Your task to perform on an android device: Show the shopping cart on newegg.com. Add beats solo 3 to the cart on newegg.com Image 0: 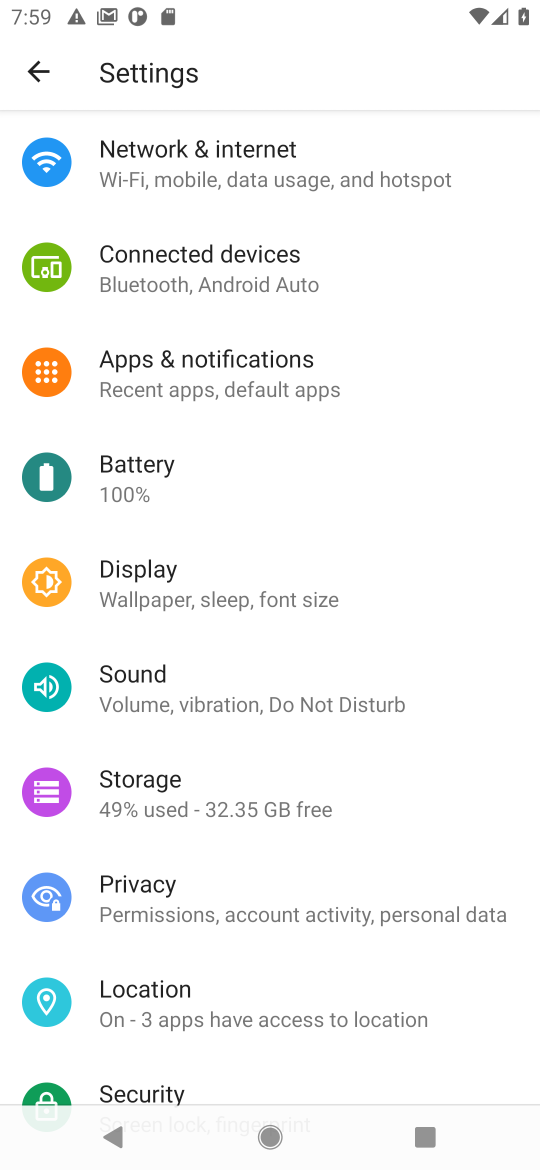
Step 0: press home button
Your task to perform on an android device: Show the shopping cart on newegg.com. Add beats solo 3 to the cart on newegg.com Image 1: 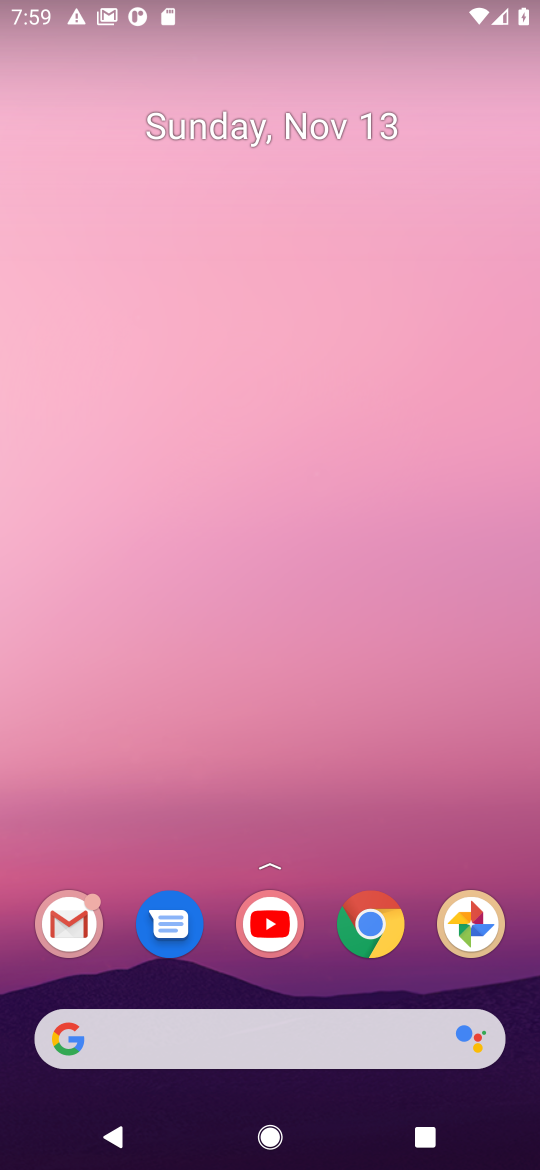
Step 1: click (375, 929)
Your task to perform on an android device: Show the shopping cart on newegg.com. Add beats solo 3 to the cart on newegg.com Image 2: 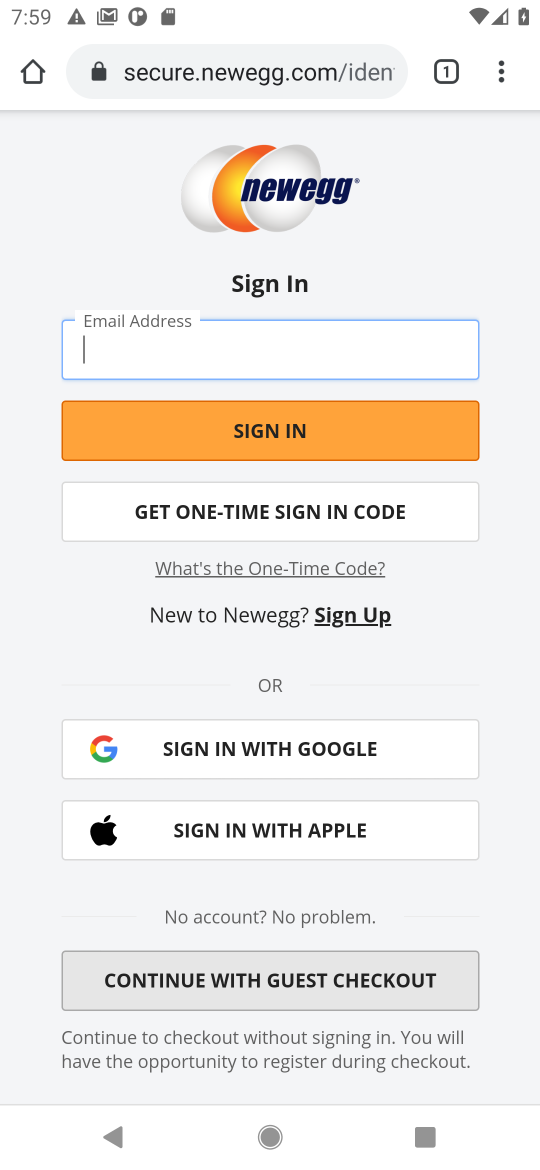
Step 2: press back button
Your task to perform on an android device: Show the shopping cart on newegg.com. Add beats solo 3 to the cart on newegg.com Image 3: 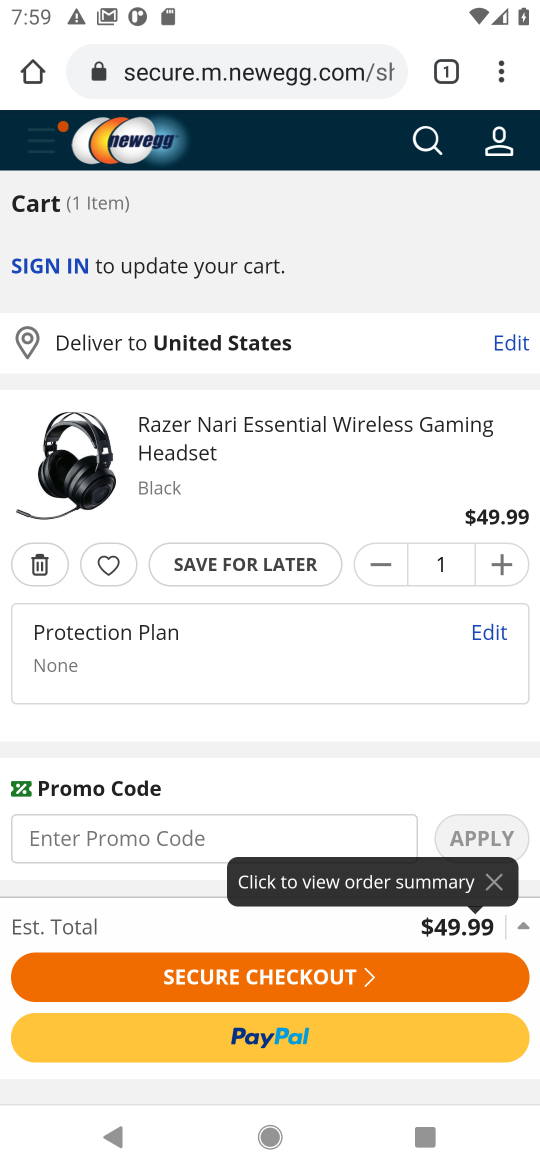
Step 3: drag from (302, 726) to (296, 454)
Your task to perform on an android device: Show the shopping cart on newegg.com. Add beats solo 3 to the cart on newegg.com Image 4: 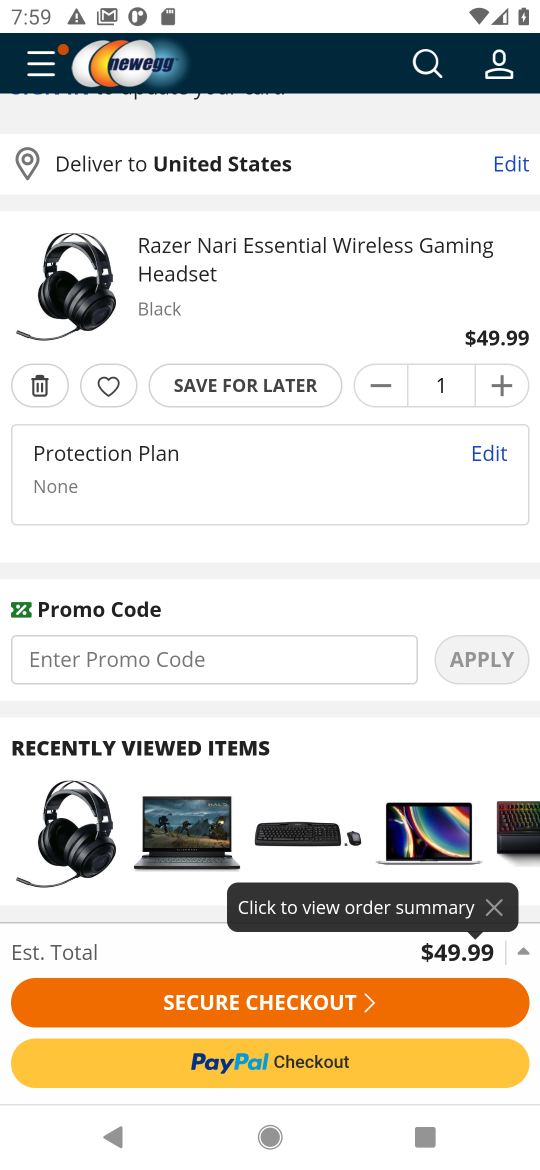
Step 4: click (429, 65)
Your task to perform on an android device: Show the shopping cart on newegg.com. Add beats solo 3 to the cart on newegg.com Image 5: 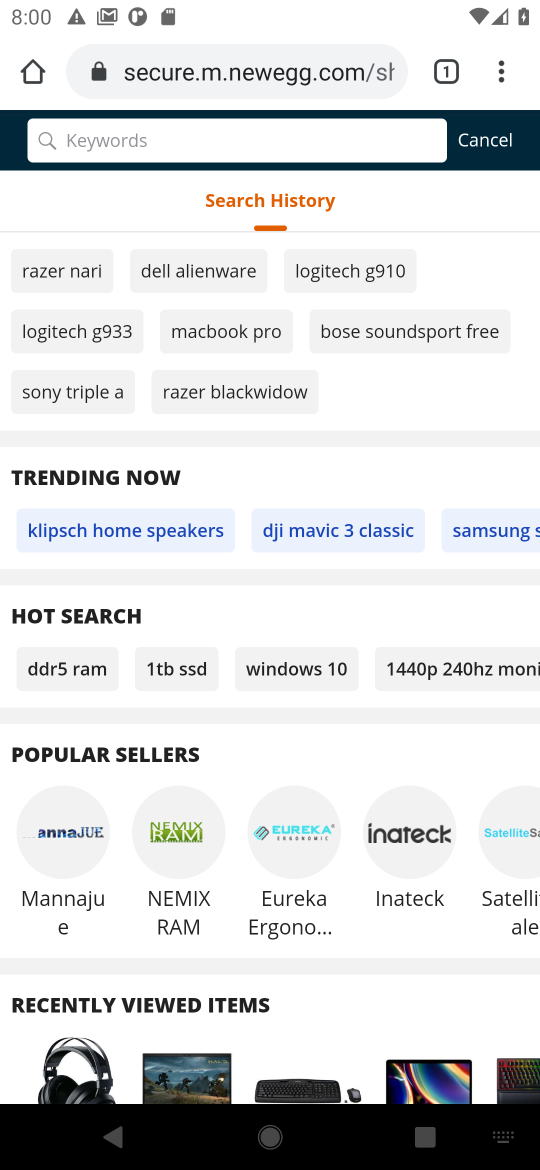
Step 5: type "beats solo 3"
Your task to perform on an android device: Show the shopping cart on newegg.com. Add beats solo 3 to the cart on newegg.com Image 6: 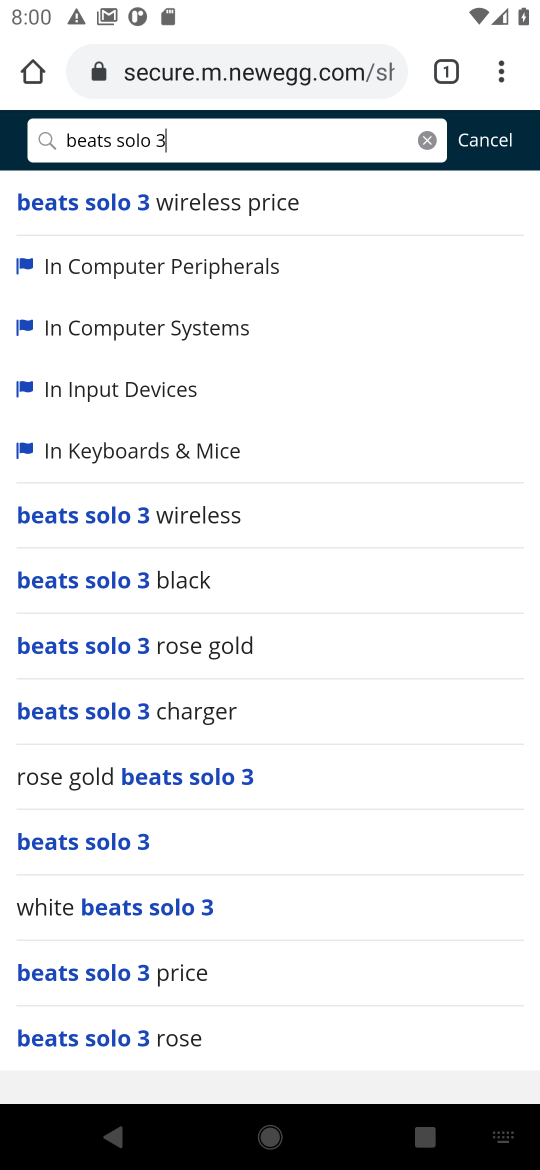
Step 6: click (82, 849)
Your task to perform on an android device: Show the shopping cart on newegg.com. Add beats solo 3 to the cart on newegg.com Image 7: 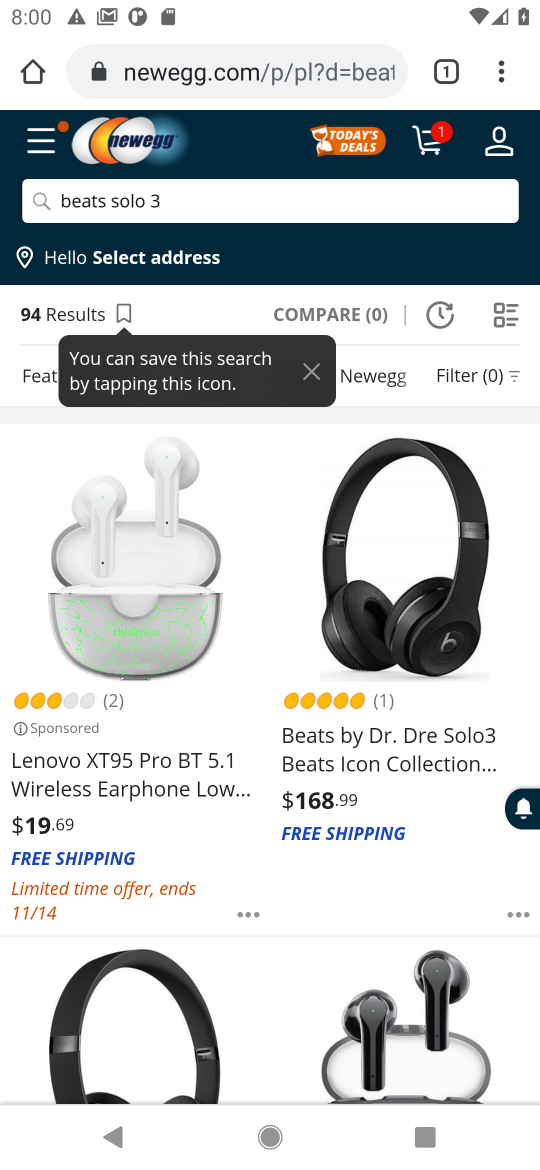
Step 7: click (392, 587)
Your task to perform on an android device: Show the shopping cart on newegg.com. Add beats solo 3 to the cart on newegg.com Image 8: 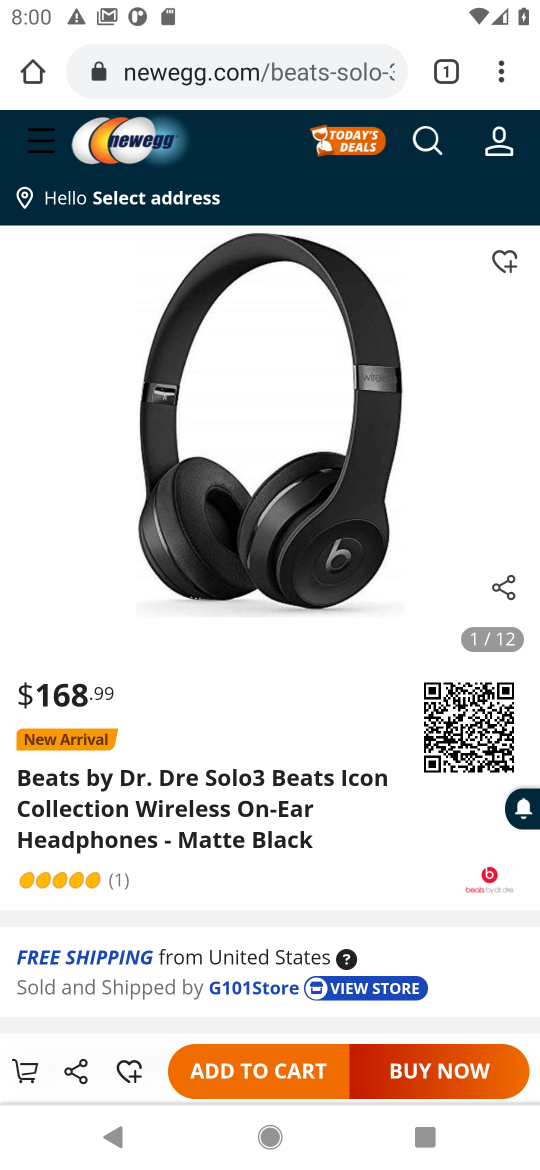
Step 8: click (233, 1077)
Your task to perform on an android device: Show the shopping cart on newegg.com. Add beats solo 3 to the cart on newegg.com Image 9: 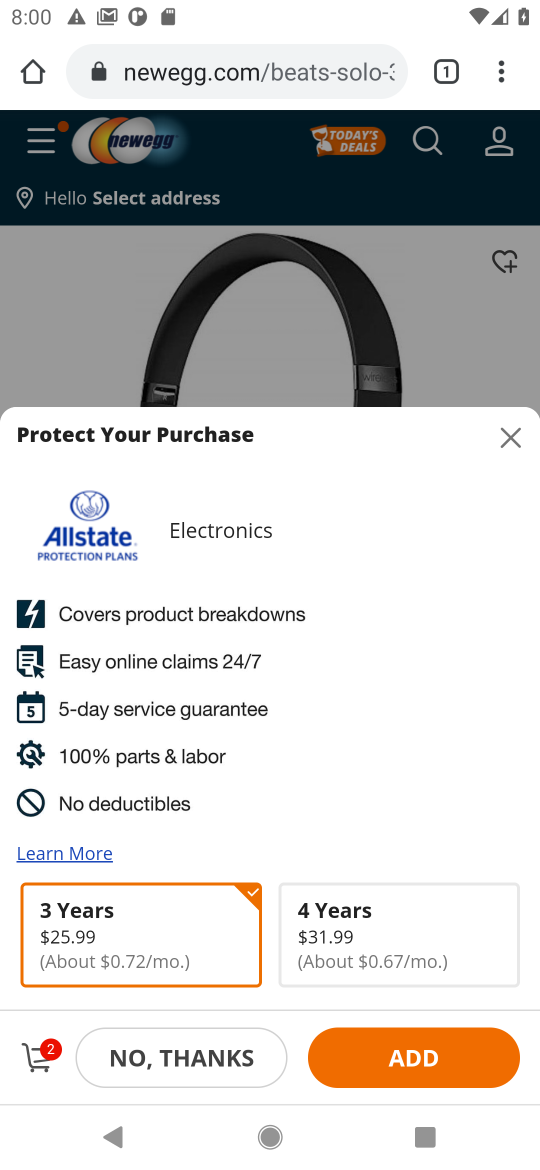
Step 9: task complete